Your task to perform on an android device: change the clock display to analog Image 0: 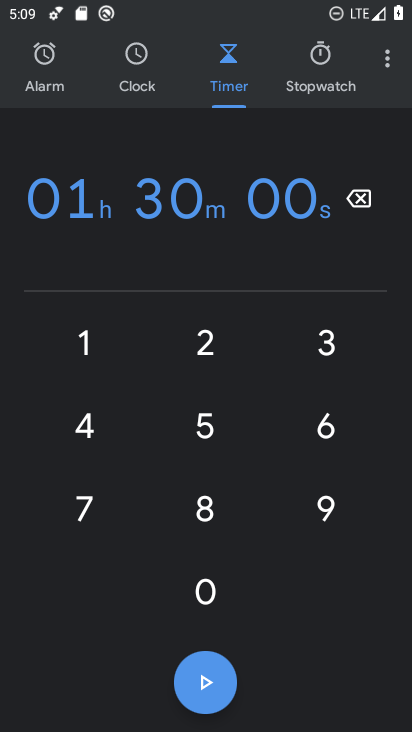
Step 0: click (387, 69)
Your task to perform on an android device: change the clock display to analog Image 1: 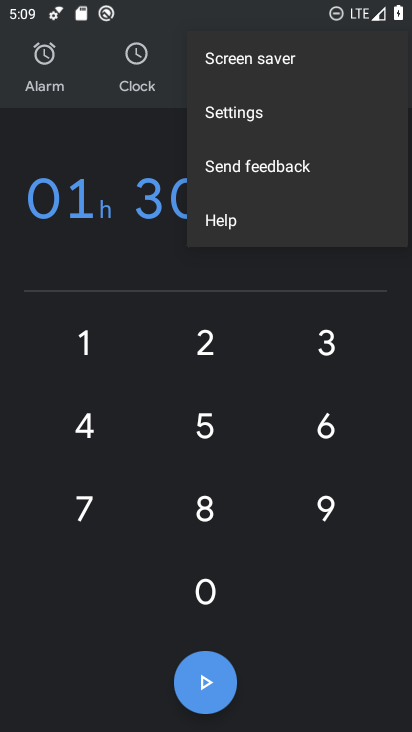
Step 1: click (223, 111)
Your task to perform on an android device: change the clock display to analog Image 2: 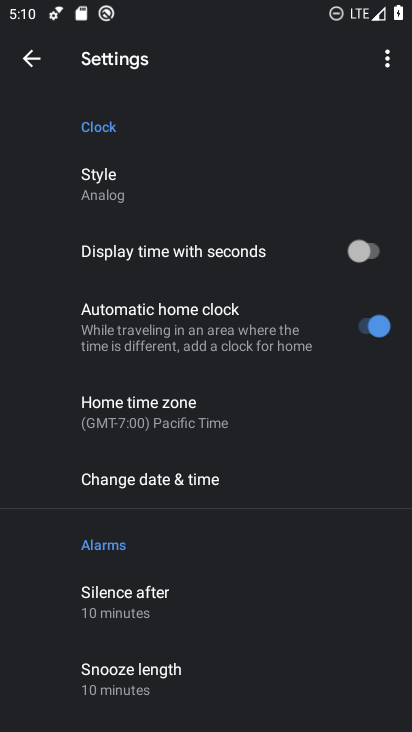
Step 2: task complete